Your task to perform on an android device: turn on javascript in the chrome app Image 0: 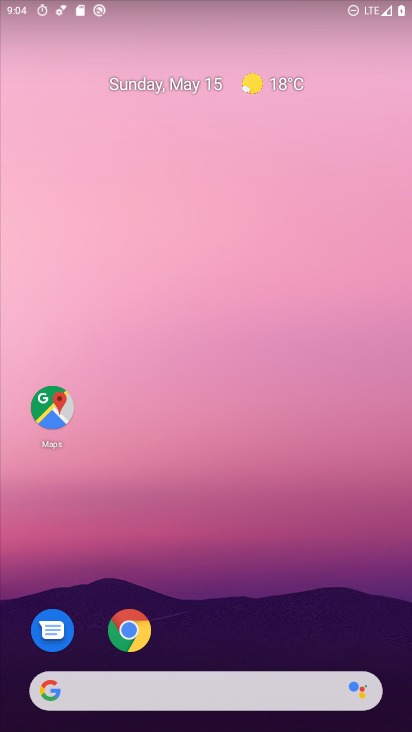
Step 0: click (326, 179)
Your task to perform on an android device: turn on javascript in the chrome app Image 1: 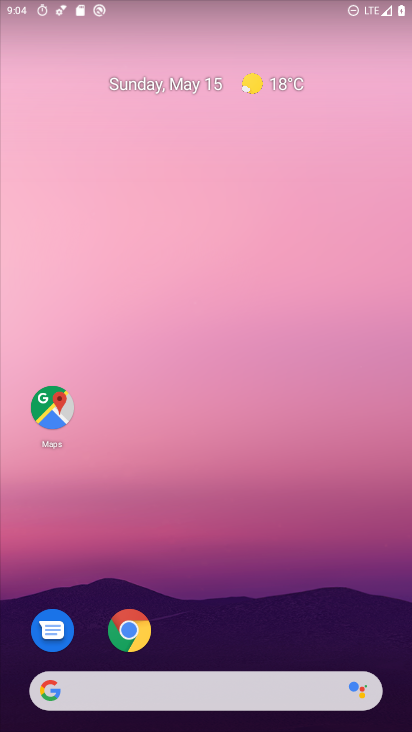
Step 1: click (130, 628)
Your task to perform on an android device: turn on javascript in the chrome app Image 2: 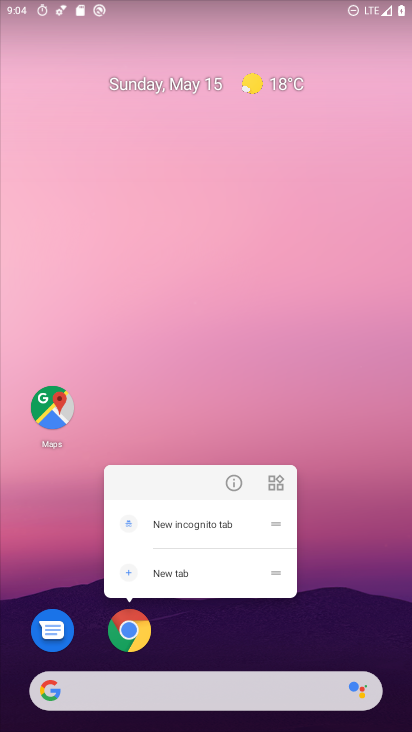
Step 2: click (235, 474)
Your task to perform on an android device: turn on javascript in the chrome app Image 3: 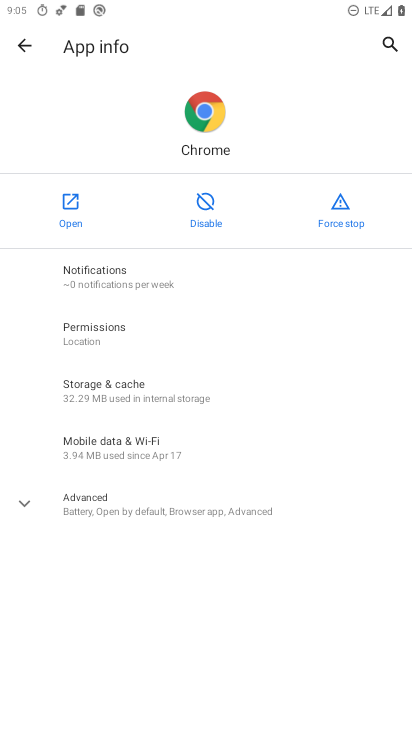
Step 3: click (75, 222)
Your task to perform on an android device: turn on javascript in the chrome app Image 4: 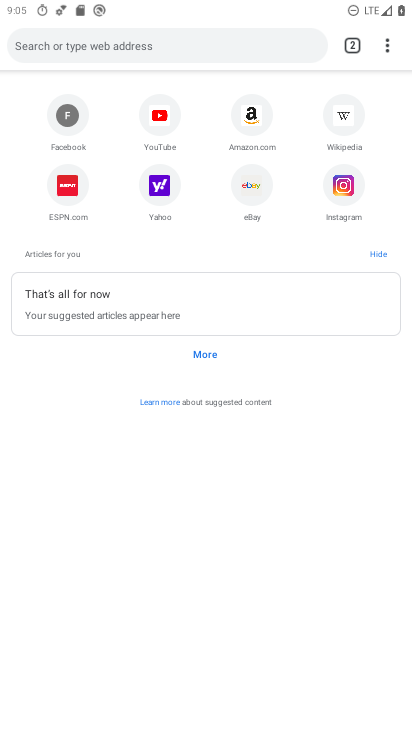
Step 4: drag from (389, 35) to (262, 367)
Your task to perform on an android device: turn on javascript in the chrome app Image 5: 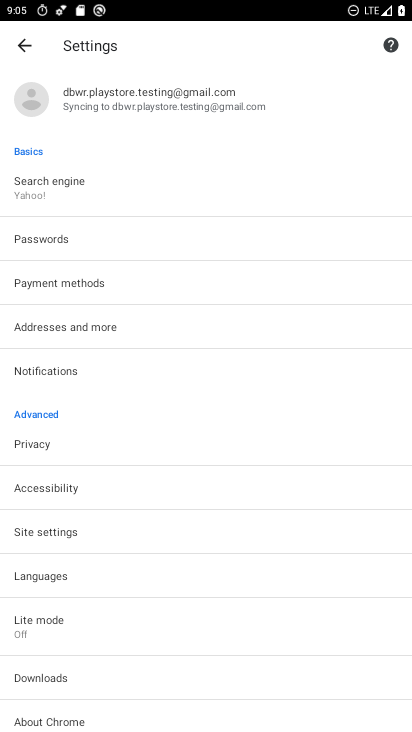
Step 5: drag from (195, 527) to (267, 268)
Your task to perform on an android device: turn on javascript in the chrome app Image 6: 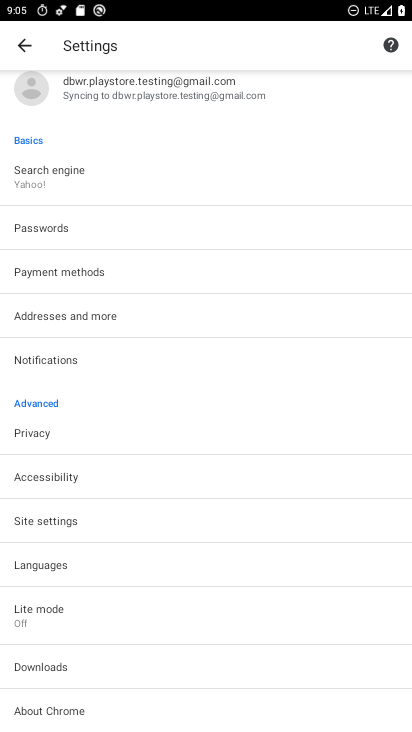
Step 6: click (96, 523)
Your task to perform on an android device: turn on javascript in the chrome app Image 7: 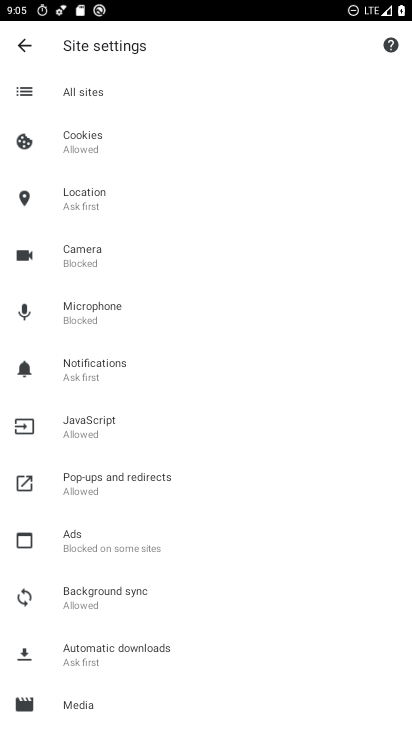
Step 7: drag from (155, 607) to (180, 407)
Your task to perform on an android device: turn on javascript in the chrome app Image 8: 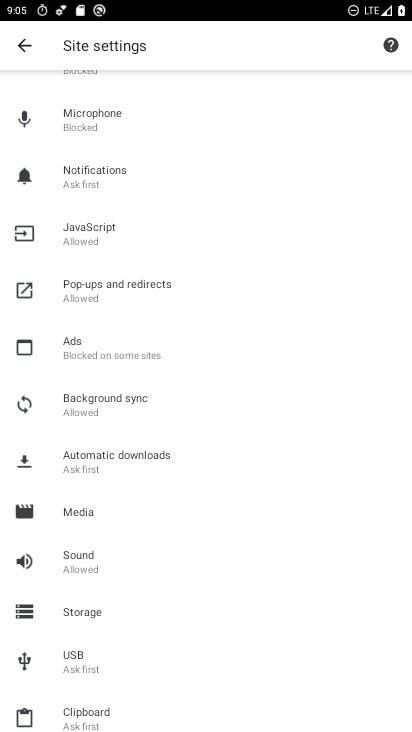
Step 8: click (120, 240)
Your task to perform on an android device: turn on javascript in the chrome app Image 9: 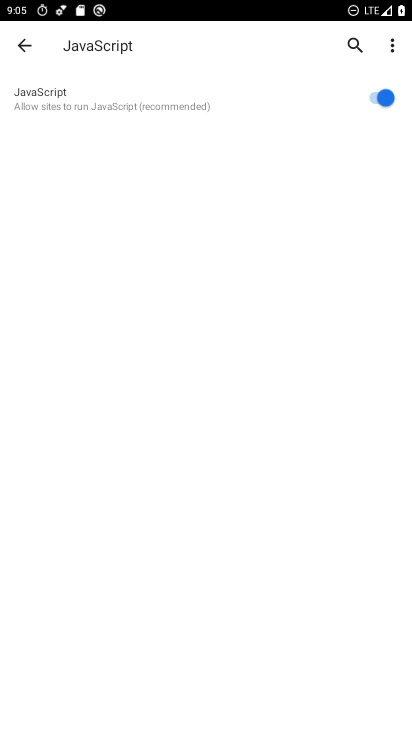
Step 9: task complete